Your task to perform on an android device: turn on wifi Image 0: 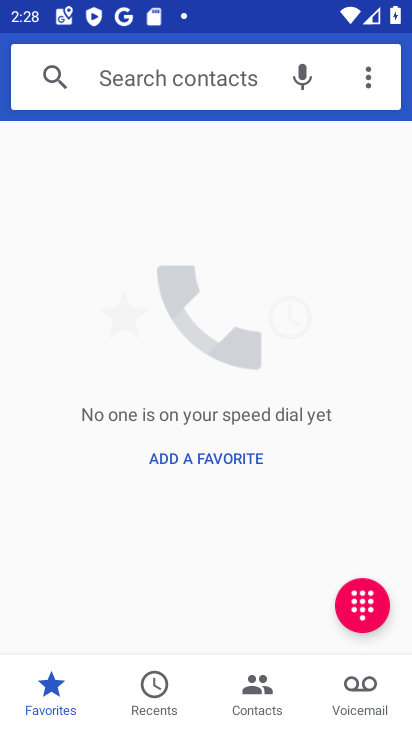
Step 0: press home button
Your task to perform on an android device: turn on wifi Image 1: 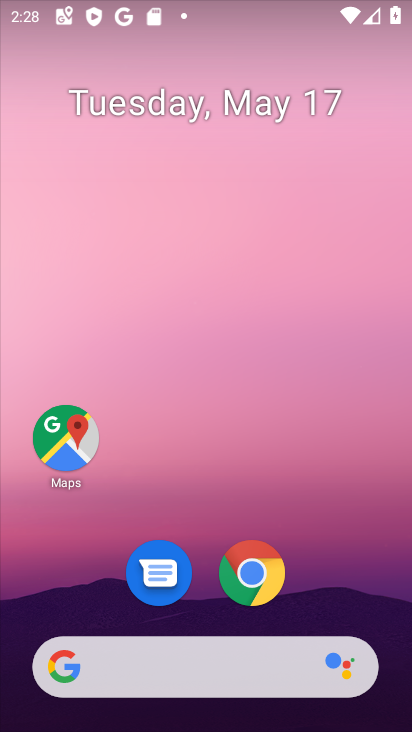
Step 1: drag from (301, 556) to (302, 232)
Your task to perform on an android device: turn on wifi Image 2: 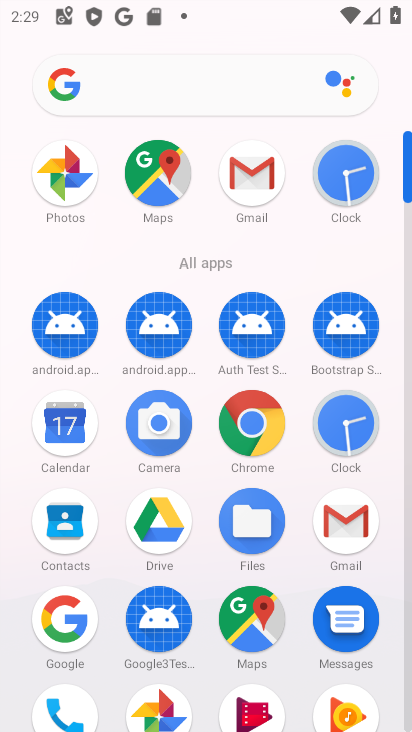
Step 2: drag from (213, 591) to (205, 291)
Your task to perform on an android device: turn on wifi Image 3: 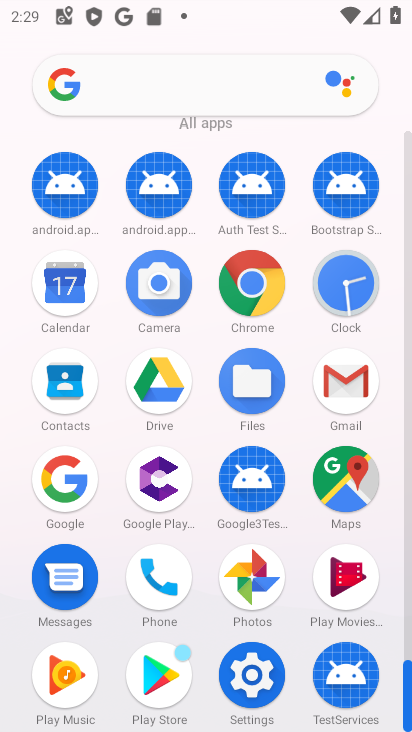
Step 3: click (235, 674)
Your task to perform on an android device: turn on wifi Image 4: 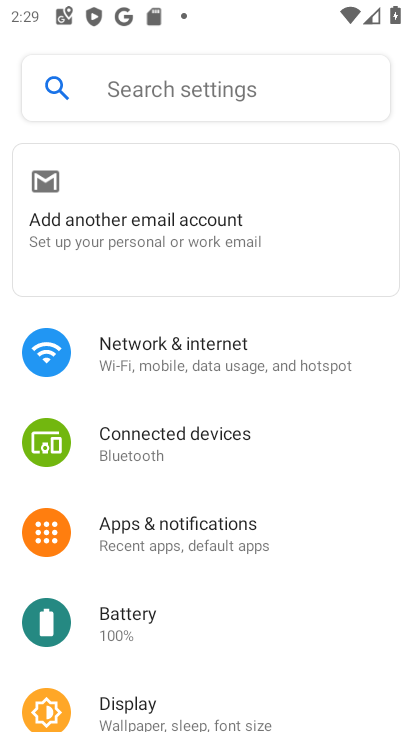
Step 4: click (278, 358)
Your task to perform on an android device: turn on wifi Image 5: 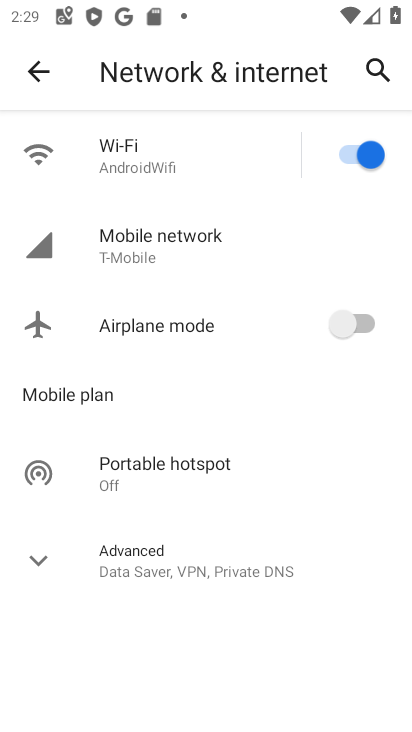
Step 5: task complete